Your task to perform on an android device: open device folders in google photos Image 0: 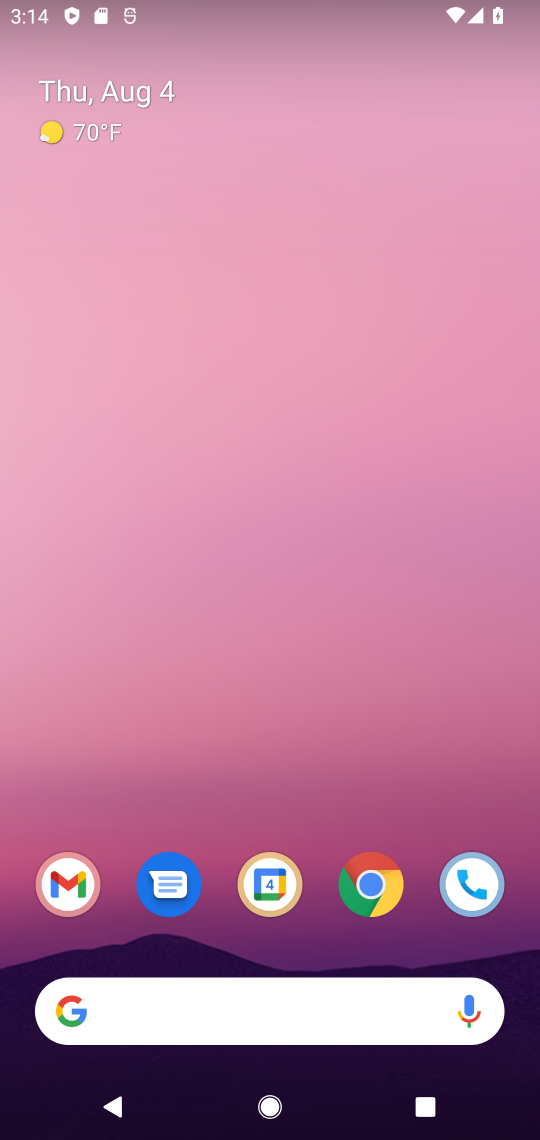
Step 0: drag from (224, 875) to (232, 223)
Your task to perform on an android device: open device folders in google photos Image 1: 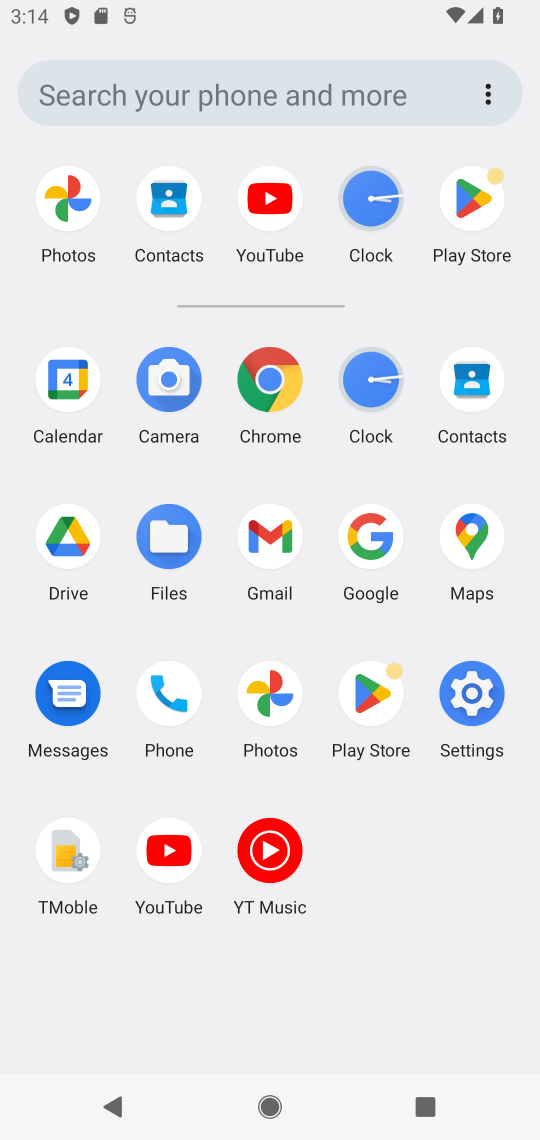
Step 1: click (260, 676)
Your task to perform on an android device: open device folders in google photos Image 2: 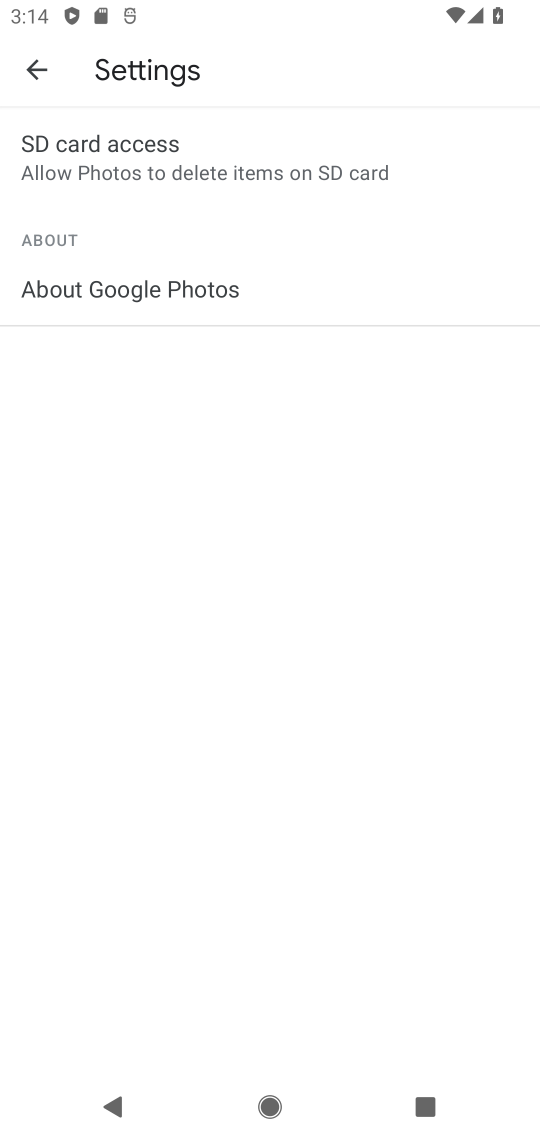
Step 2: click (34, 65)
Your task to perform on an android device: open device folders in google photos Image 3: 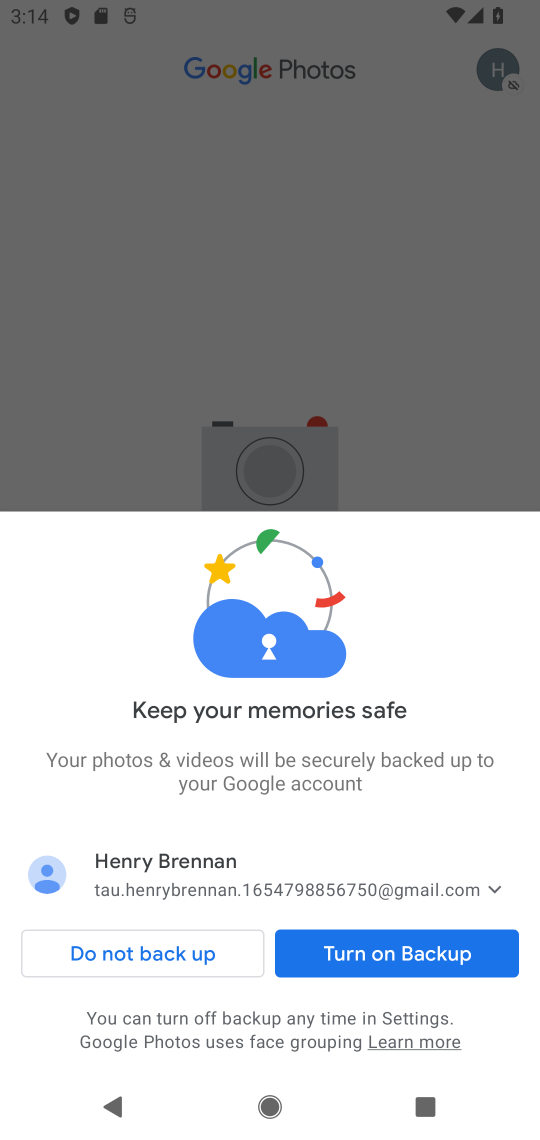
Step 3: click (345, 949)
Your task to perform on an android device: open device folders in google photos Image 4: 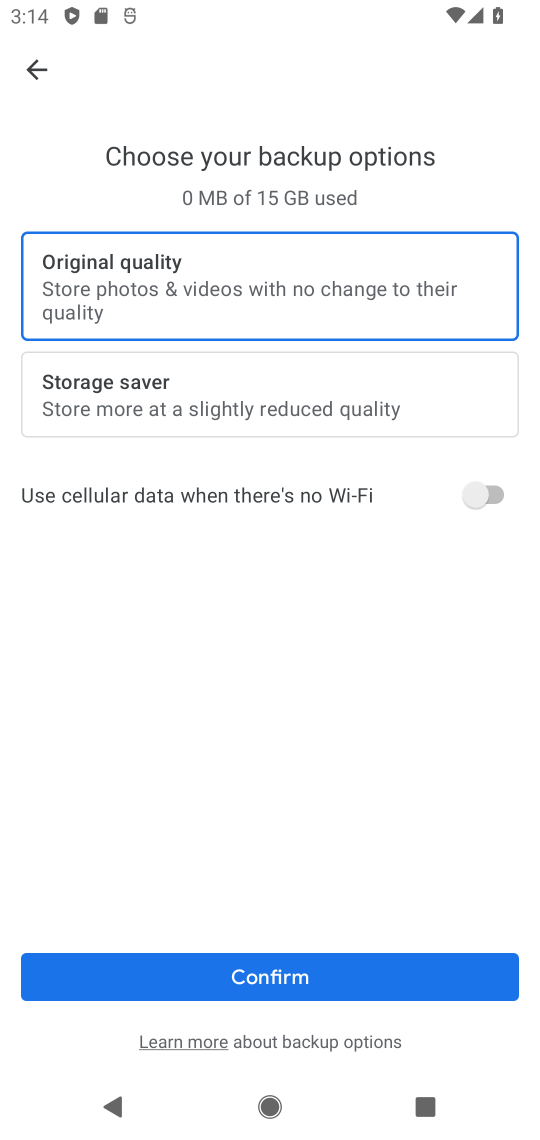
Step 4: click (279, 972)
Your task to perform on an android device: open device folders in google photos Image 5: 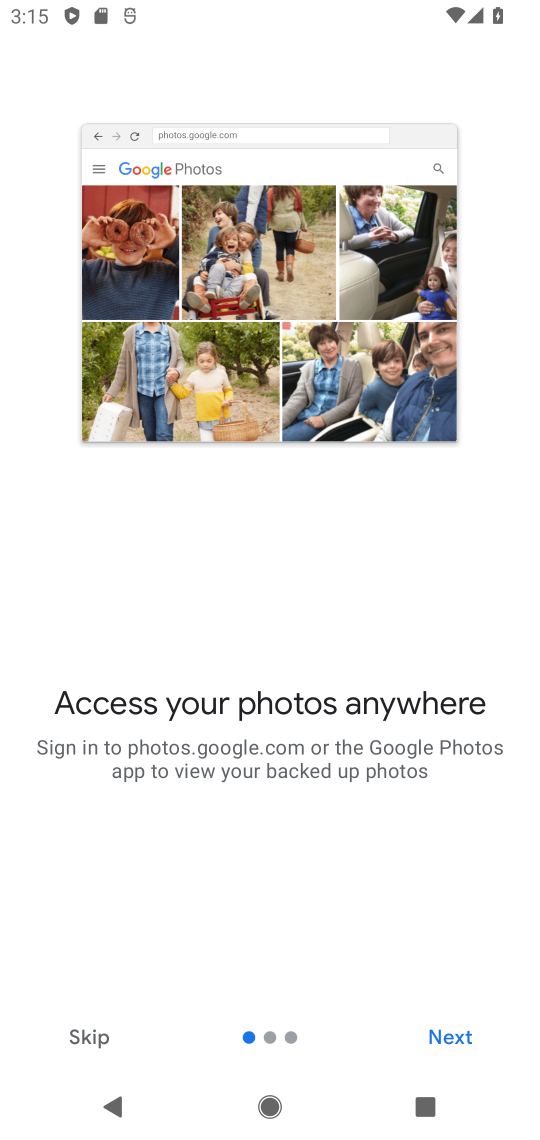
Step 5: click (441, 1033)
Your task to perform on an android device: open device folders in google photos Image 6: 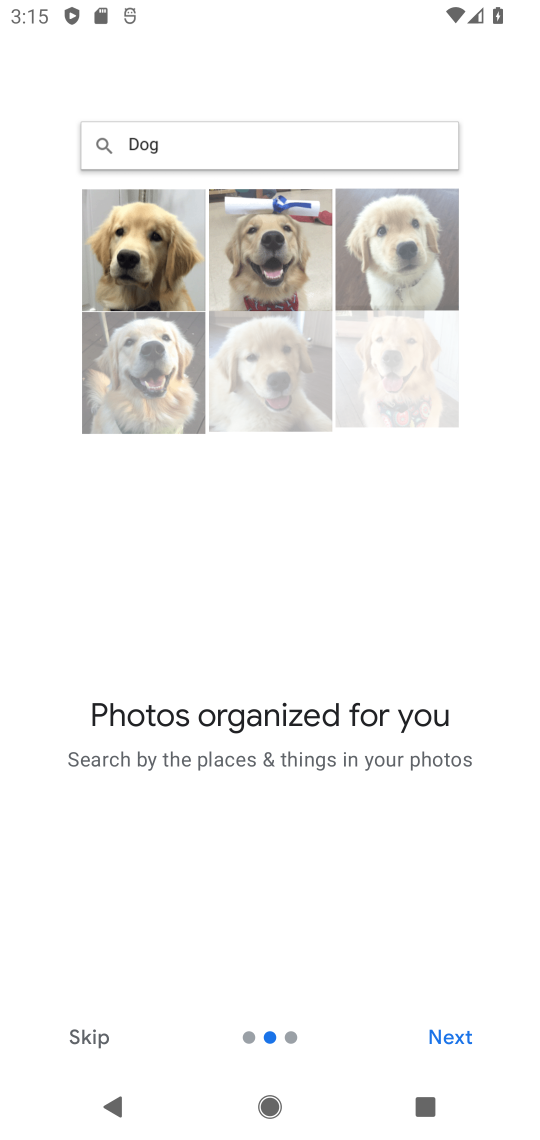
Step 6: click (441, 1033)
Your task to perform on an android device: open device folders in google photos Image 7: 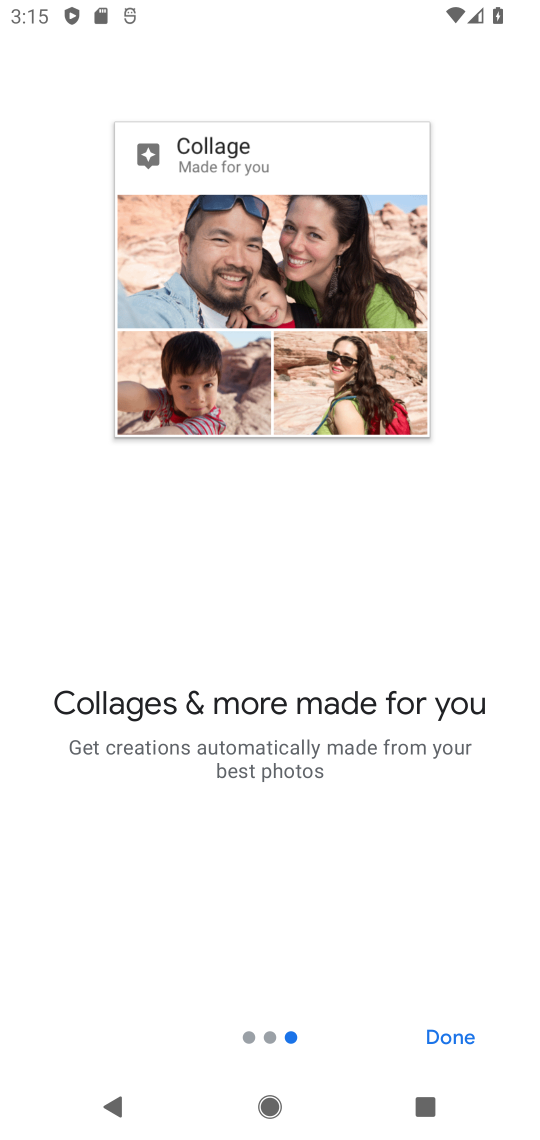
Step 7: click (441, 1034)
Your task to perform on an android device: open device folders in google photos Image 8: 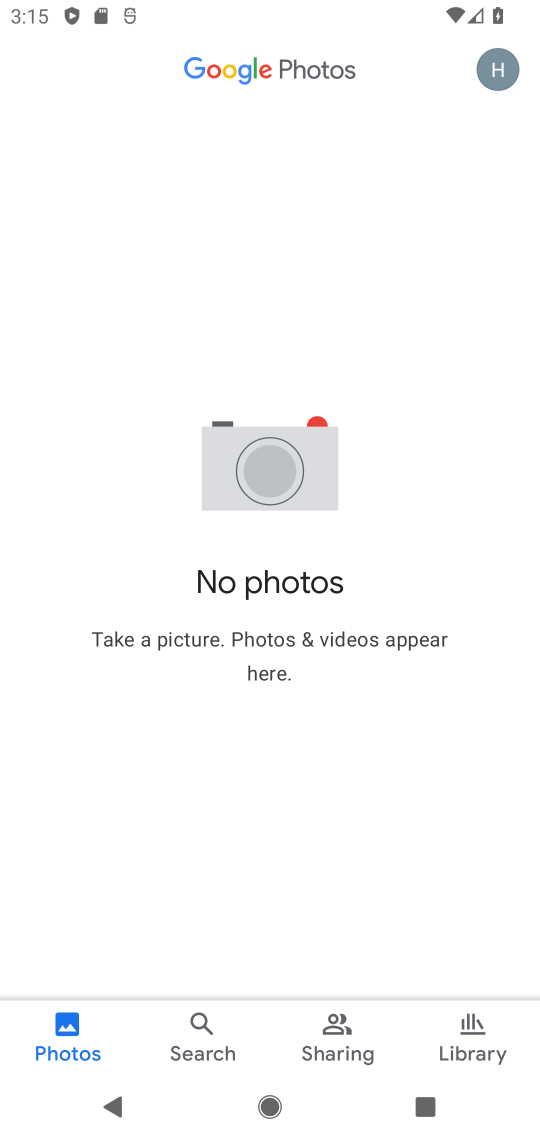
Step 8: task complete